Your task to perform on an android device: turn off wifi Image 0: 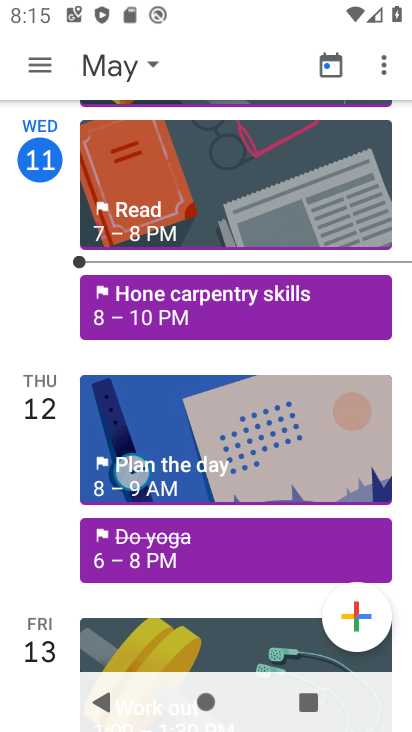
Step 0: press back button
Your task to perform on an android device: turn off wifi Image 1: 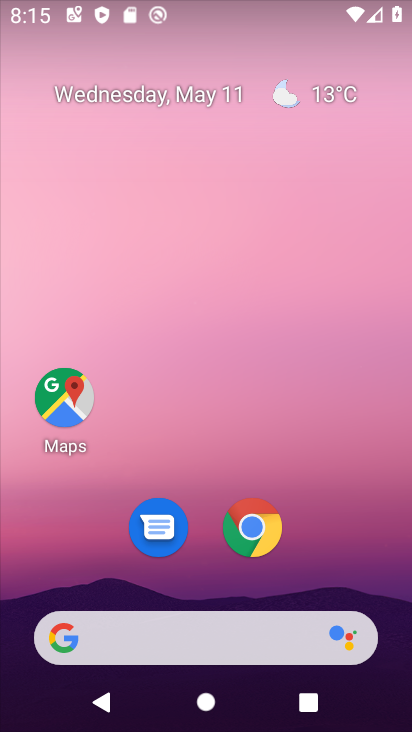
Step 1: drag from (84, 616) to (190, 155)
Your task to perform on an android device: turn off wifi Image 2: 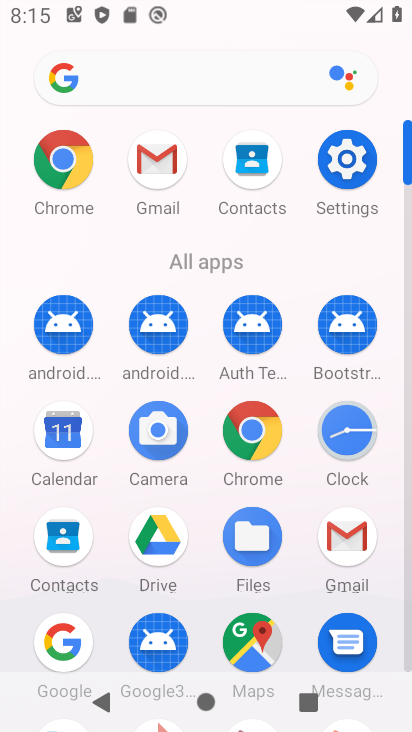
Step 2: click (351, 161)
Your task to perform on an android device: turn off wifi Image 3: 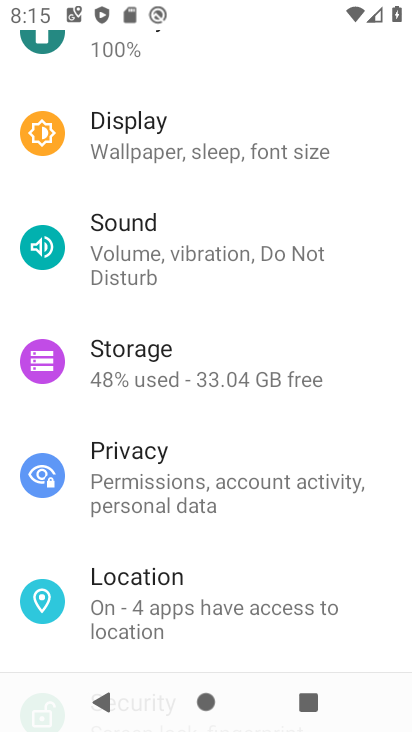
Step 3: drag from (245, 110) to (243, 575)
Your task to perform on an android device: turn off wifi Image 4: 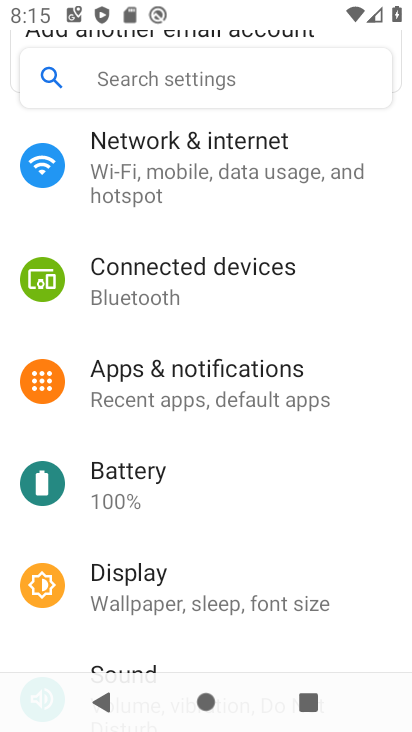
Step 4: click (225, 191)
Your task to perform on an android device: turn off wifi Image 5: 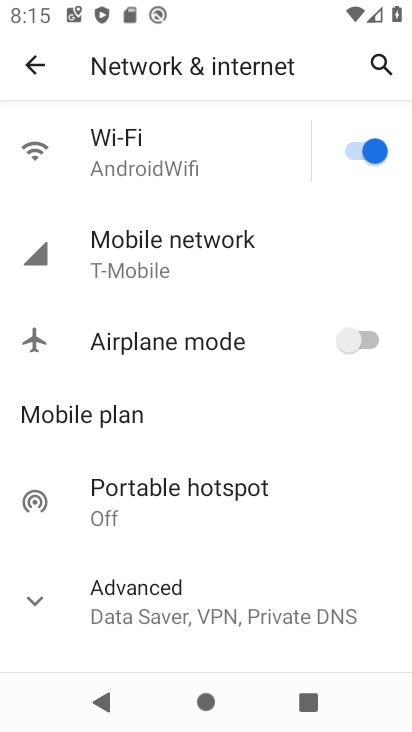
Step 5: click (362, 158)
Your task to perform on an android device: turn off wifi Image 6: 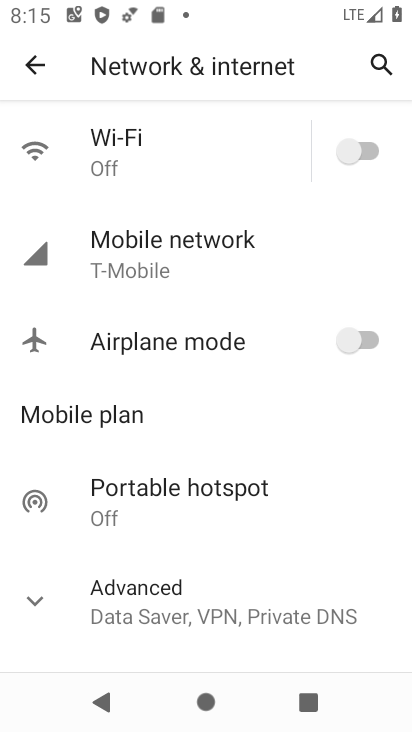
Step 6: task complete